Your task to perform on an android device: Go to privacy settings Image 0: 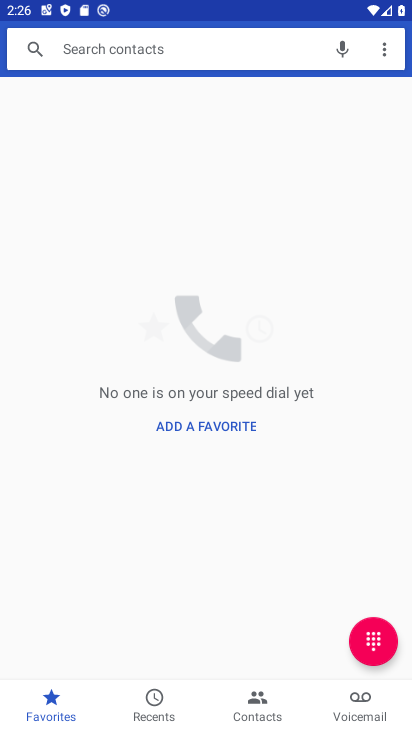
Step 0: press home button
Your task to perform on an android device: Go to privacy settings Image 1: 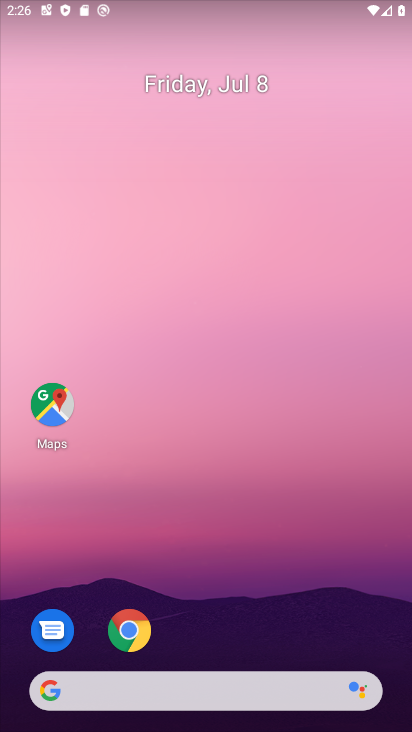
Step 1: drag from (254, 586) to (250, 426)
Your task to perform on an android device: Go to privacy settings Image 2: 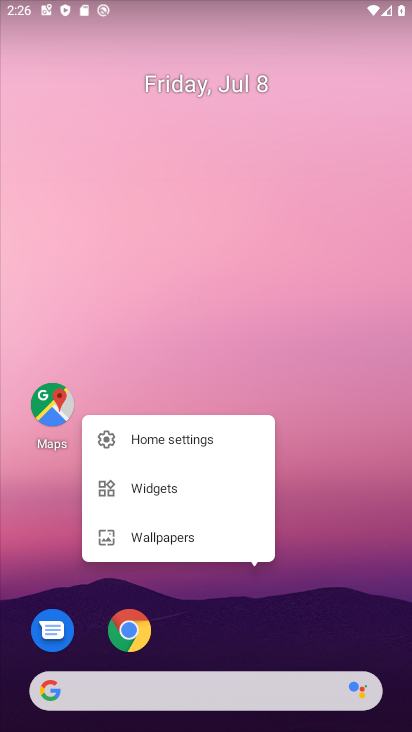
Step 2: click (318, 609)
Your task to perform on an android device: Go to privacy settings Image 3: 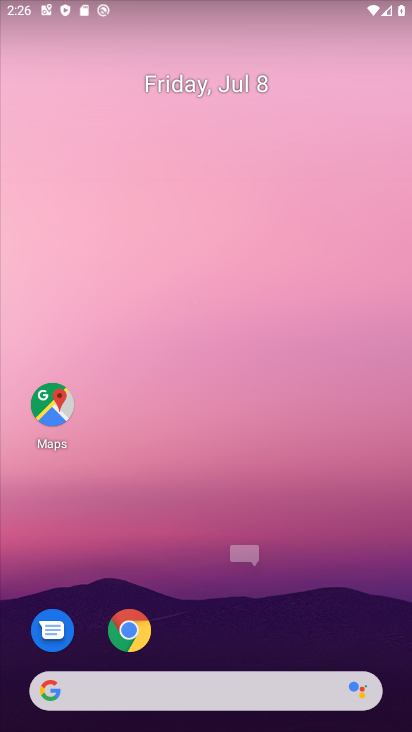
Step 3: drag from (318, 609) to (248, 306)
Your task to perform on an android device: Go to privacy settings Image 4: 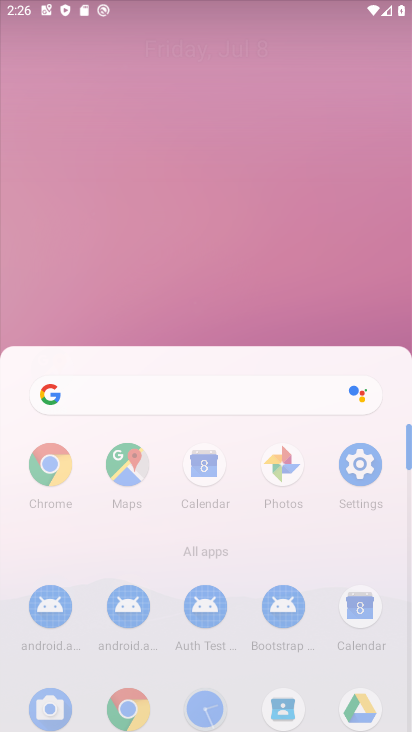
Step 4: click (248, 306)
Your task to perform on an android device: Go to privacy settings Image 5: 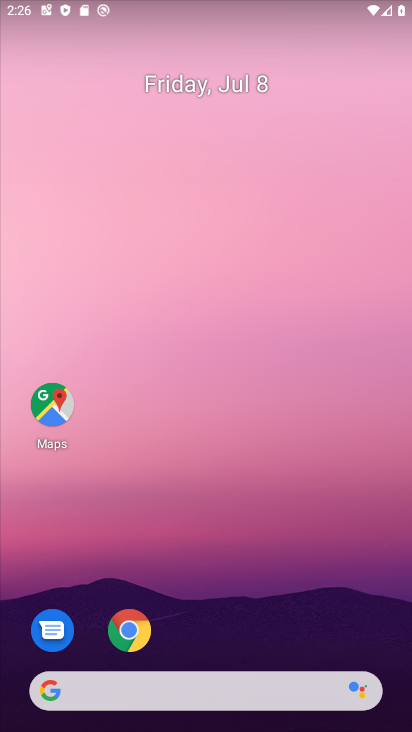
Step 5: drag from (321, 620) to (264, 13)
Your task to perform on an android device: Go to privacy settings Image 6: 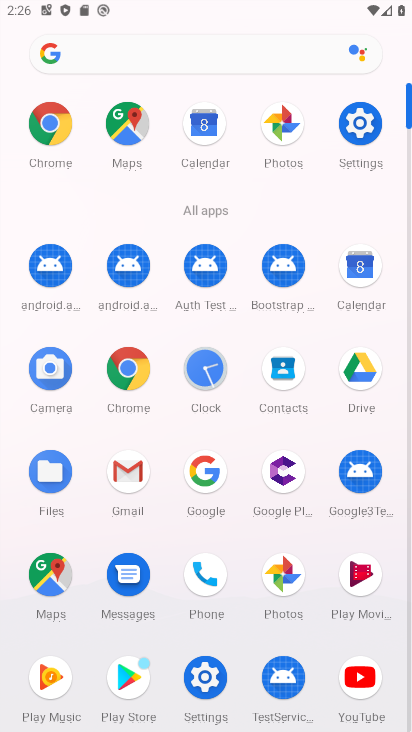
Step 6: click (349, 106)
Your task to perform on an android device: Go to privacy settings Image 7: 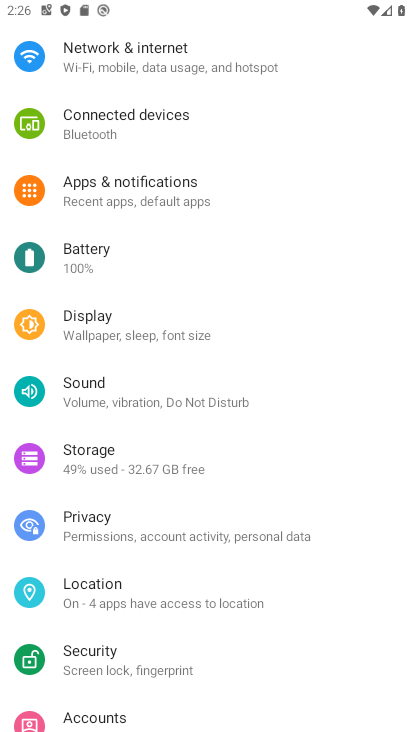
Step 7: click (229, 515)
Your task to perform on an android device: Go to privacy settings Image 8: 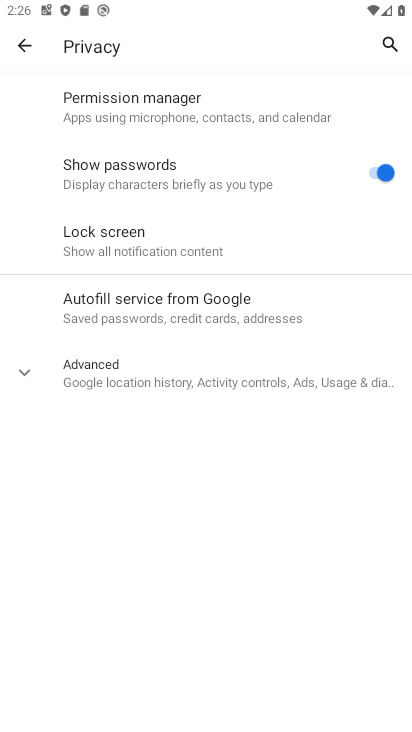
Step 8: task complete